Your task to perform on an android device: toggle data saver in the chrome app Image 0: 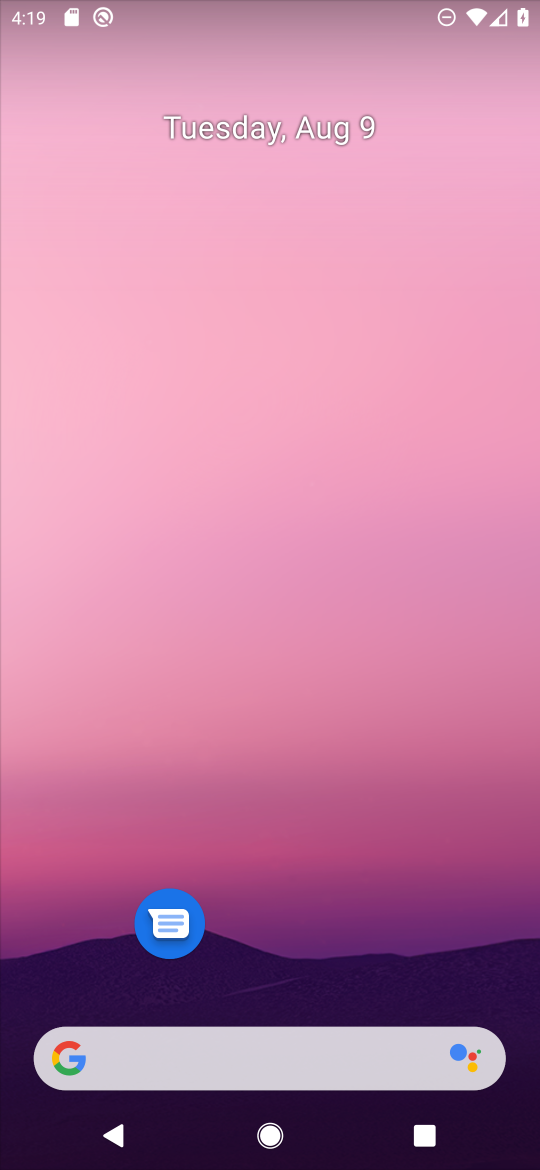
Step 0: drag from (283, 956) to (413, 8)
Your task to perform on an android device: toggle data saver in the chrome app Image 1: 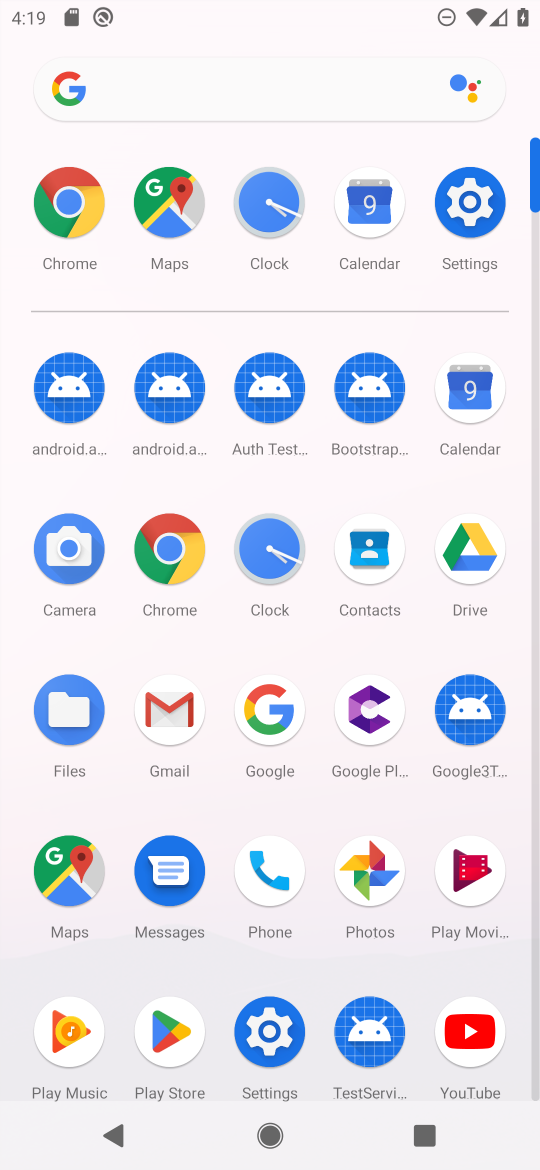
Step 1: click (57, 201)
Your task to perform on an android device: toggle data saver in the chrome app Image 2: 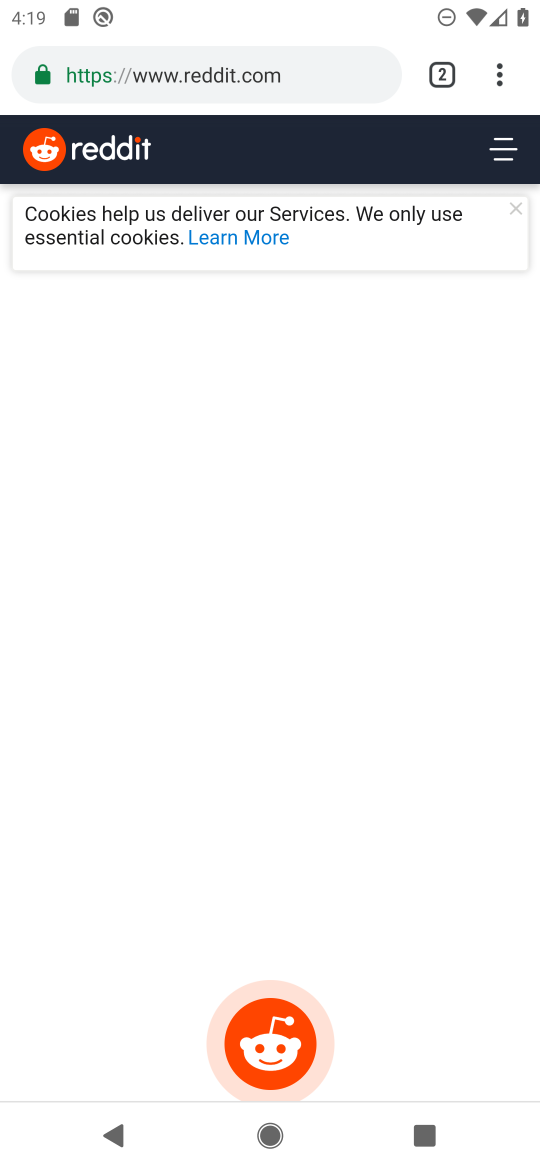
Step 2: drag from (497, 79) to (239, 976)
Your task to perform on an android device: toggle data saver in the chrome app Image 3: 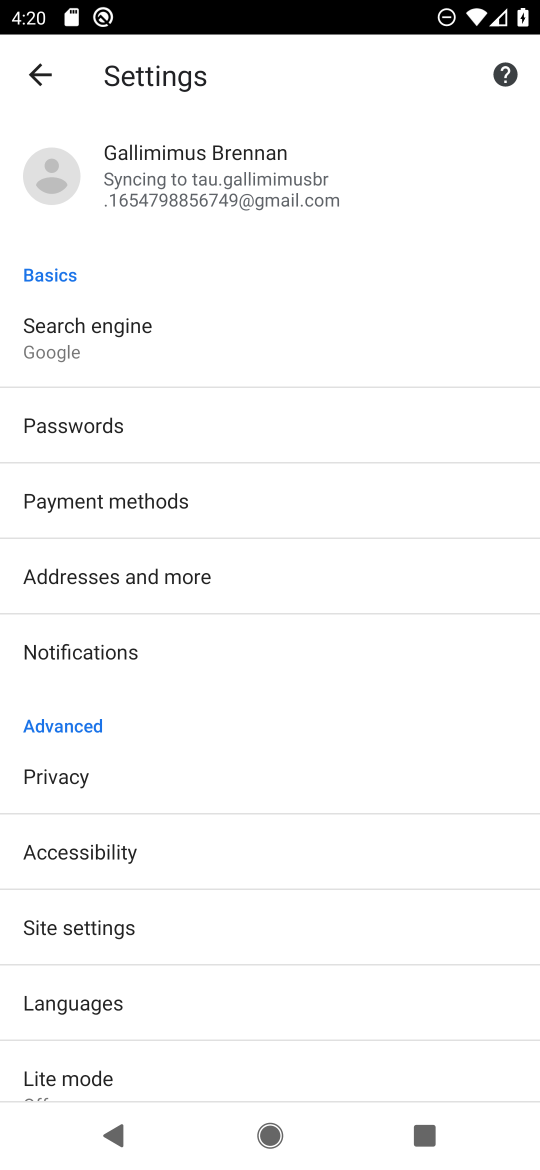
Step 3: click (101, 1074)
Your task to perform on an android device: toggle data saver in the chrome app Image 4: 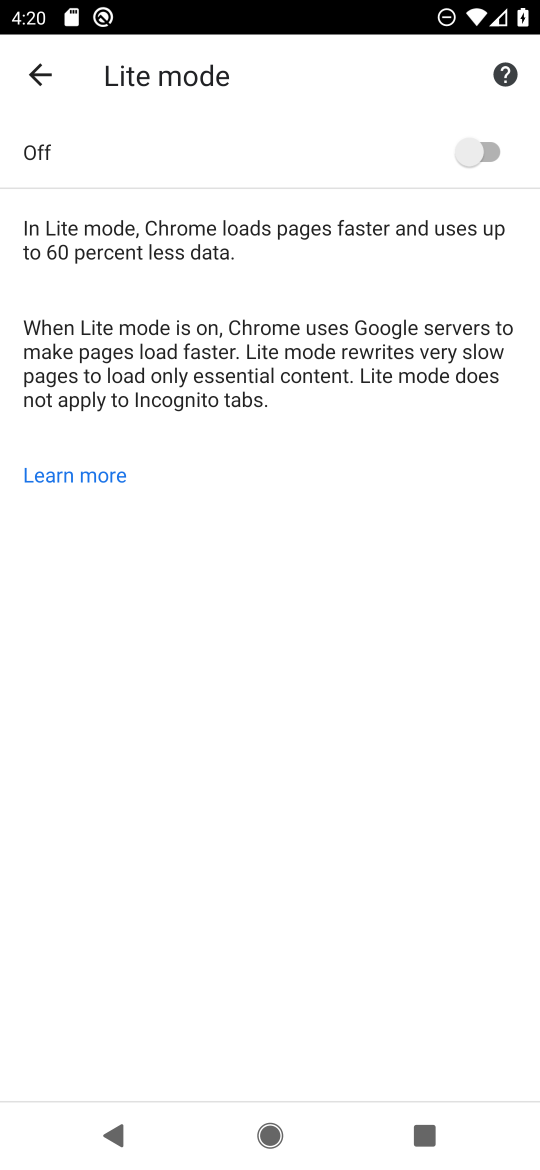
Step 4: click (481, 153)
Your task to perform on an android device: toggle data saver in the chrome app Image 5: 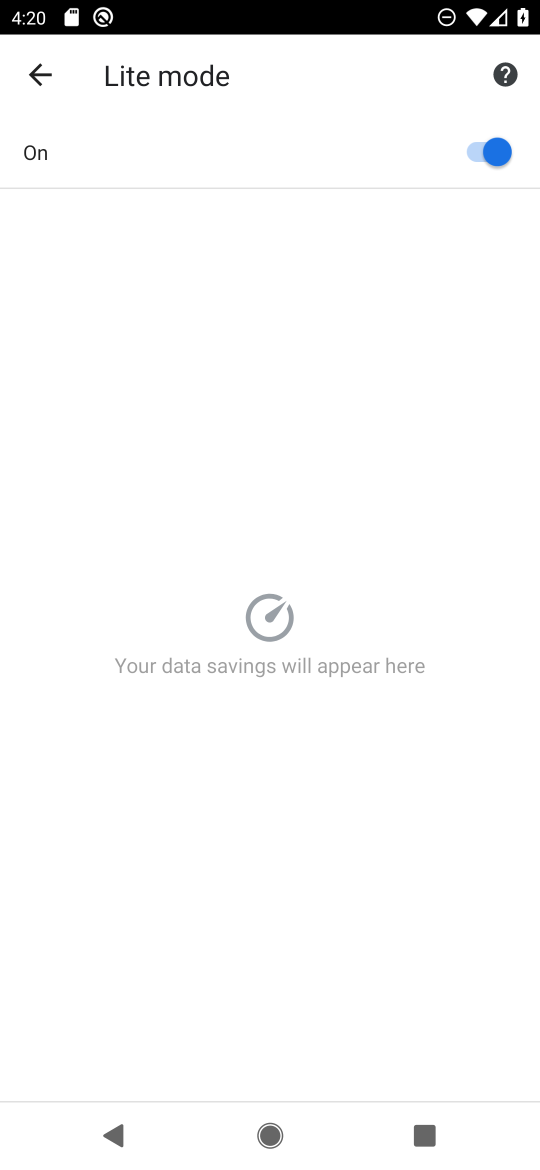
Step 5: task complete